Your task to perform on an android device: When is my next meeting? Image 0: 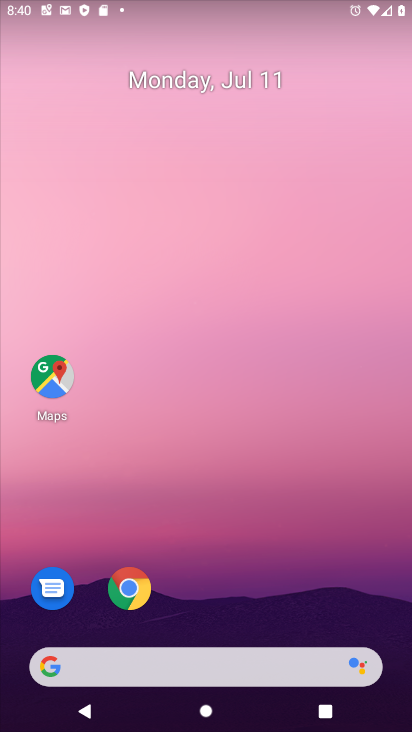
Step 0: drag from (168, 671) to (249, 248)
Your task to perform on an android device: When is my next meeting? Image 1: 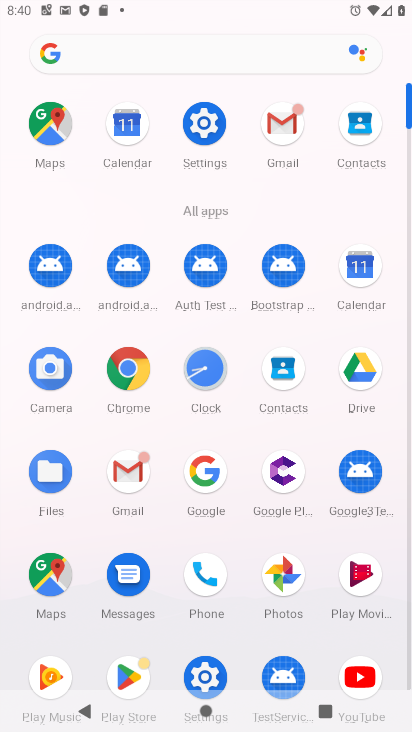
Step 1: click (130, 120)
Your task to perform on an android device: When is my next meeting? Image 2: 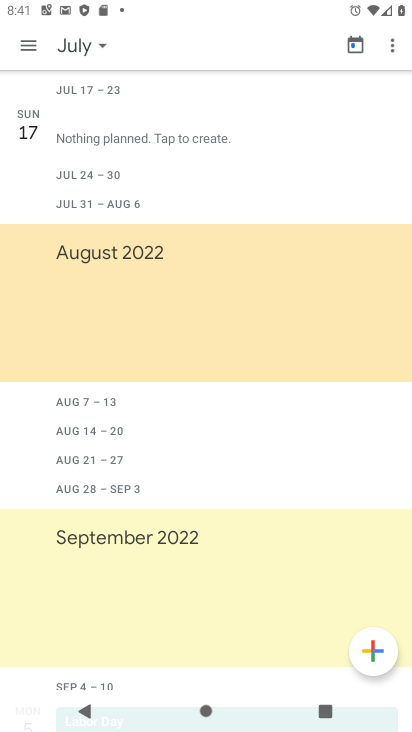
Step 2: task complete